Your task to perform on an android device: Go to Google Image 0: 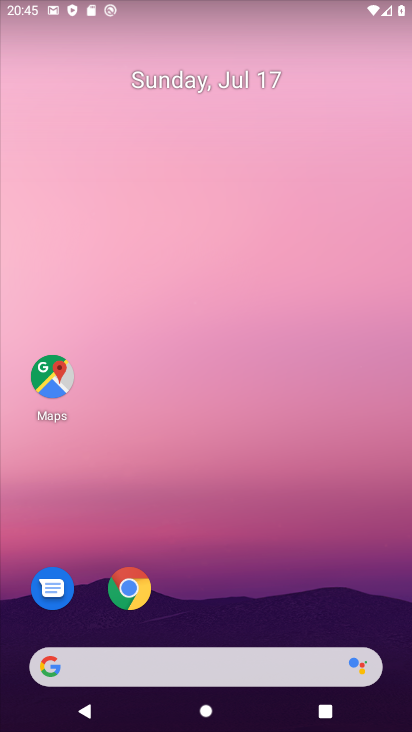
Step 0: press home button
Your task to perform on an android device: Go to Google Image 1: 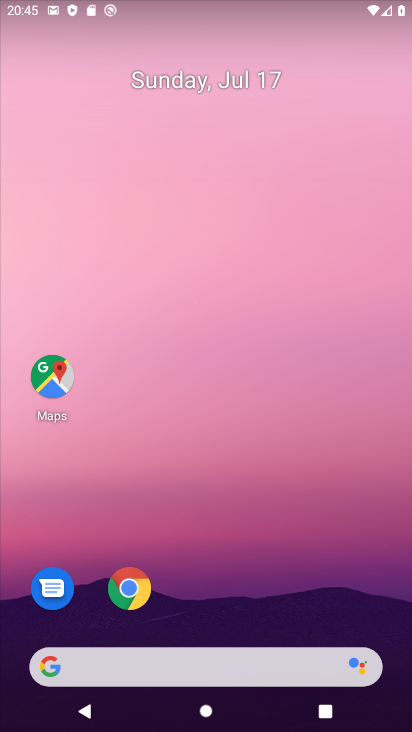
Step 1: drag from (296, 621) to (411, 77)
Your task to perform on an android device: Go to Google Image 2: 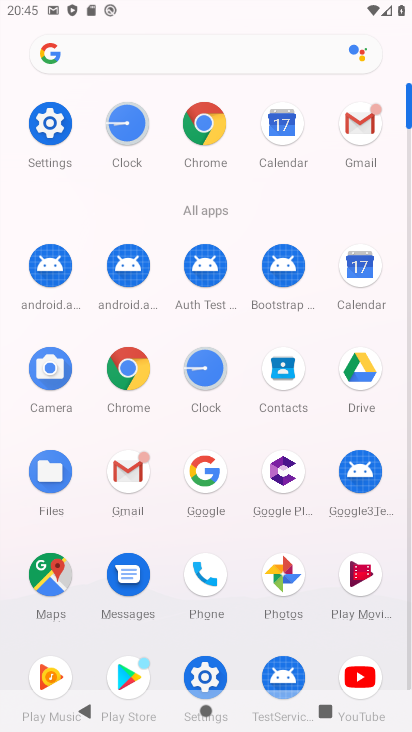
Step 2: click (197, 485)
Your task to perform on an android device: Go to Google Image 3: 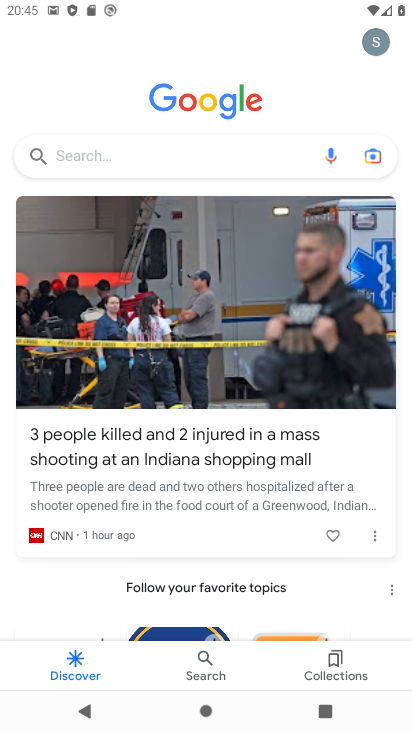
Step 3: task complete